Your task to perform on an android device: Set the phone to "Do not disturb". Image 0: 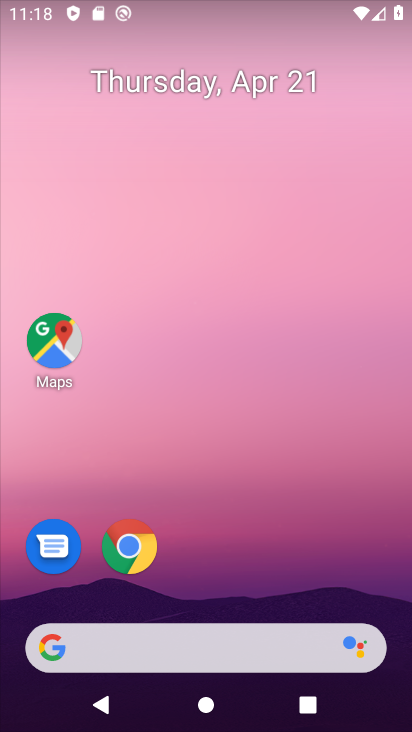
Step 0: drag from (233, 585) to (249, 194)
Your task to perform on an android device: Set the phone to "Do not disturb". Image 1: 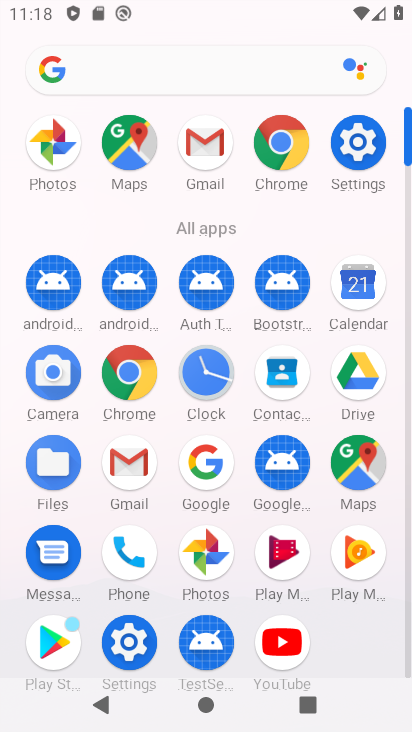
Step 1: click (361, 150)
Your task to perform on an android device: Set the phone to "Do not disturb". Image 2: 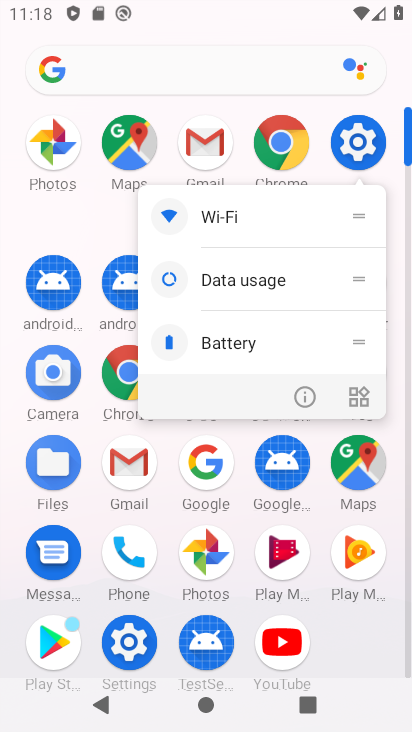
Step 2: click (359, 148)
Your task to perform on an android device: Set the phone to "Do not disturb". Image 3: 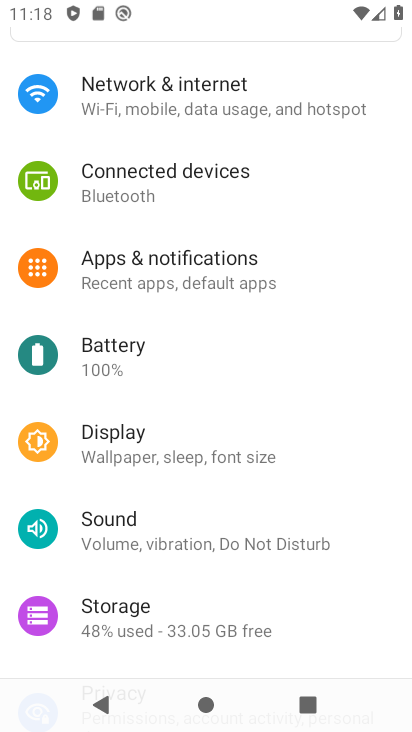
Step 3: click (197, 539)
Your task to perform on an android device: Set the phone to "Do not disturb". Image 4: 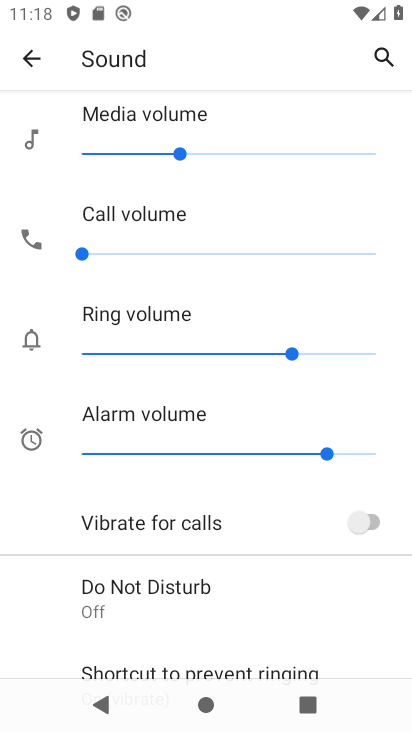
Step 4: click (182, 598)
Your task to perform on an android device: Set the phone to "Do not disturb". Image 5: 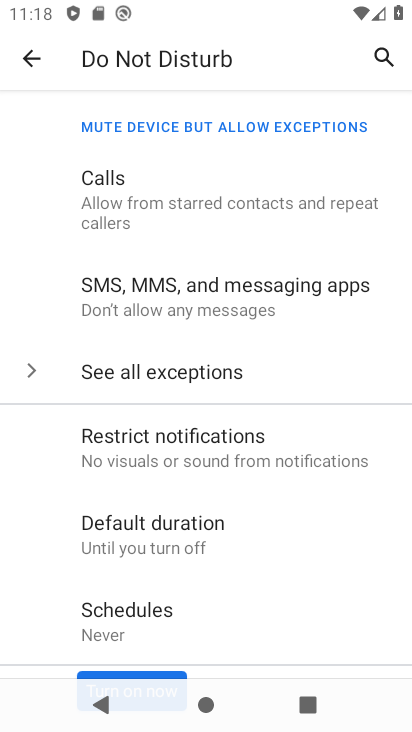
Step 5: drag from (293, 606) to (291, 296)
Your task to perform on an android device: Set the phone to "Do not disturb". Image 6: 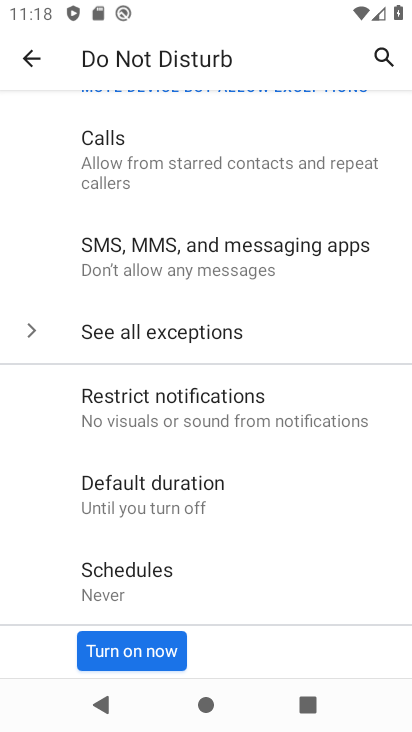
Step 6: click (136, 656)
Your task to perform on an android device: Set the phone to "Do not disturb". Image 7: 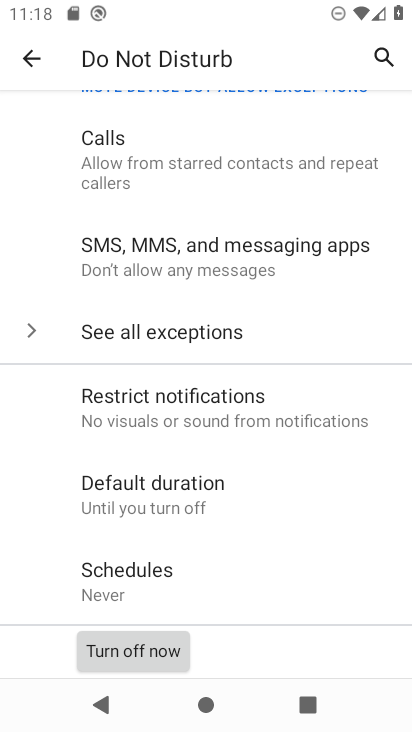
Step 7: task complete